Your task to perform on an android device: Open Google Image 0: 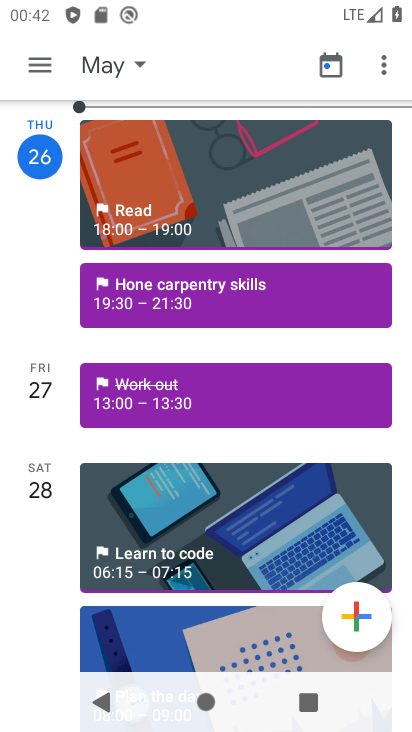
Step 0: press home button
Your task to perform on an android device: Open Google Image 1: 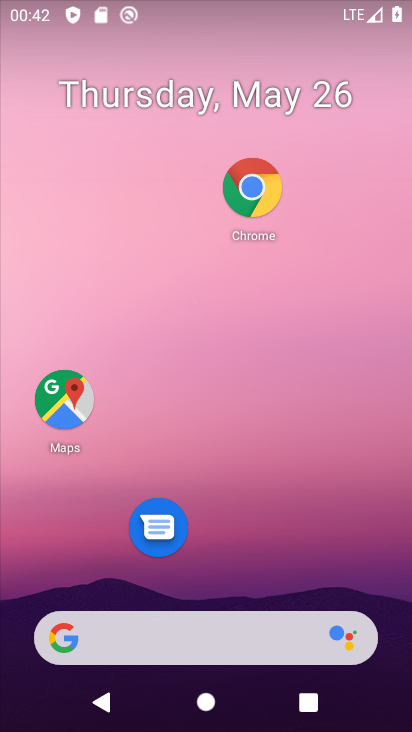
Step 1: click (170, 627)
Your task to perform on an android device: Open Google Image 2: 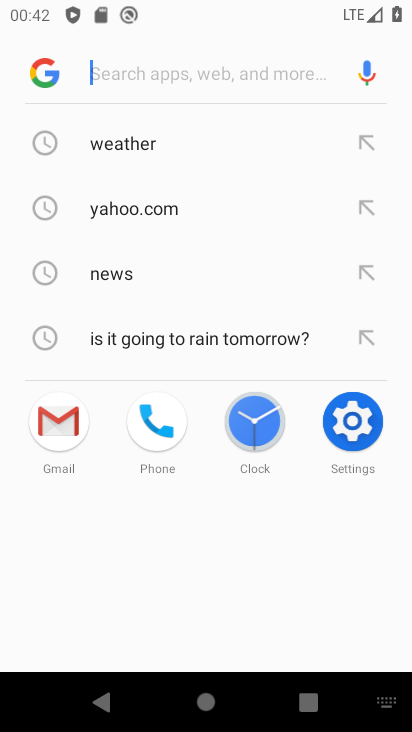
Step 2: task complete